Your task to perform on an android device: Open CNN.com Image 0: 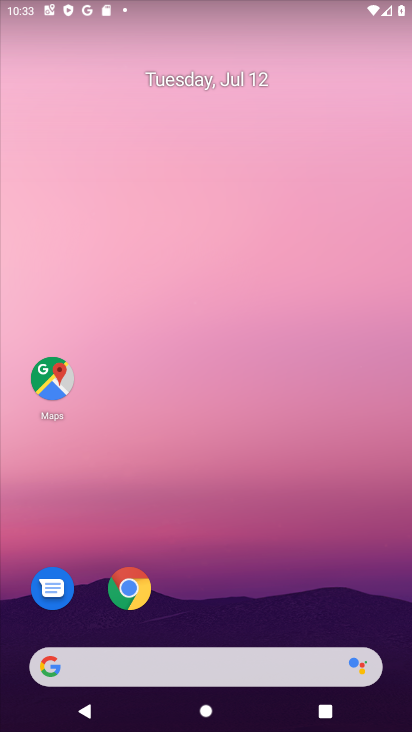
Step 0: drag from (199, 574) to (256, 2)
Your task to perform on an android device: Open CNN.com Image 1: 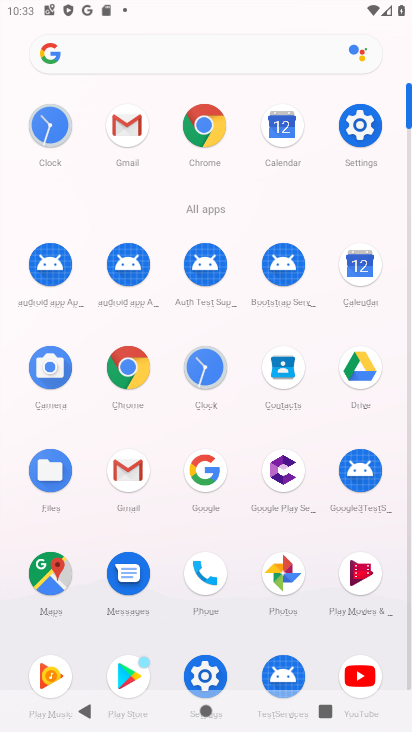
Step 1: click (122, 358)
Your task to perform on an android device: Open CNN.com Image 2: 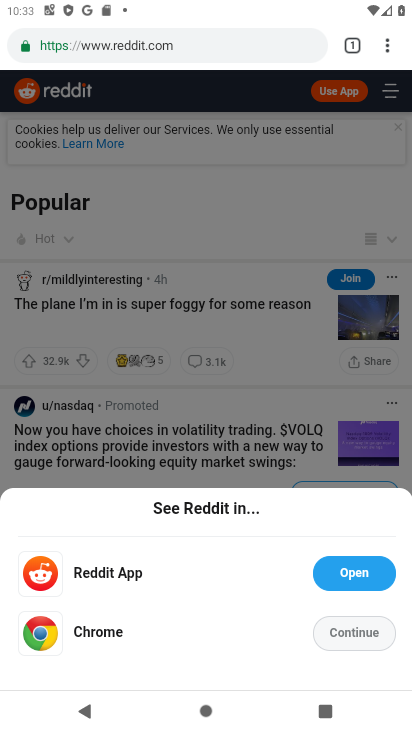
Step 2: click (208, 35)
Your task to perform on an android device: Open CNN.com Image 3: 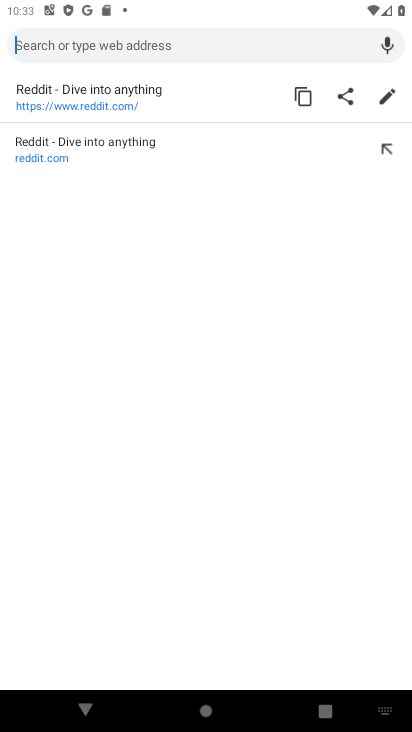
Step 3: type " CNN.com"
Your task to perform on an android device: Open CNN.com Image 4: 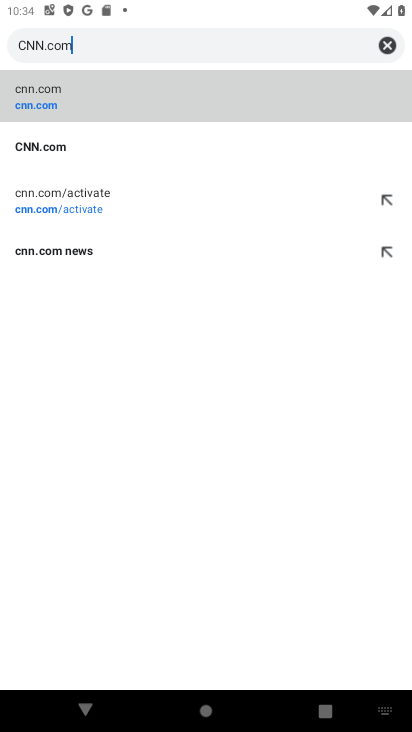
Step 4: click (39, 101)
Your task to perform on an android device: Open CNN.com Image 5: 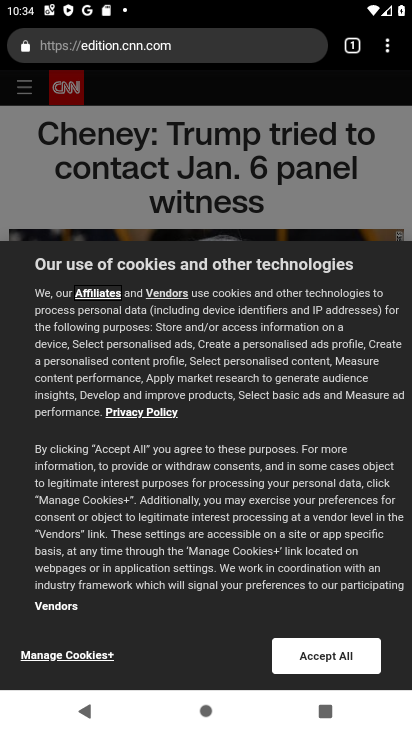
Step 5: task complete